Your task to perform on an android device: Go to ESPN.com Image 0: 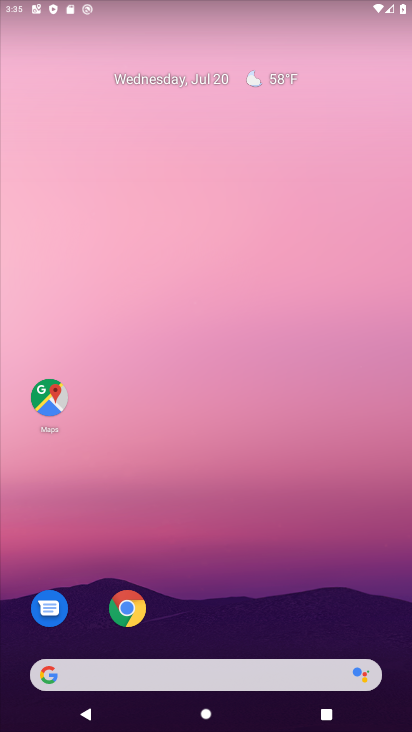
Step 0: click (201, 685)
Your task to perform on an android device: Go to ESPN.com Image 1: 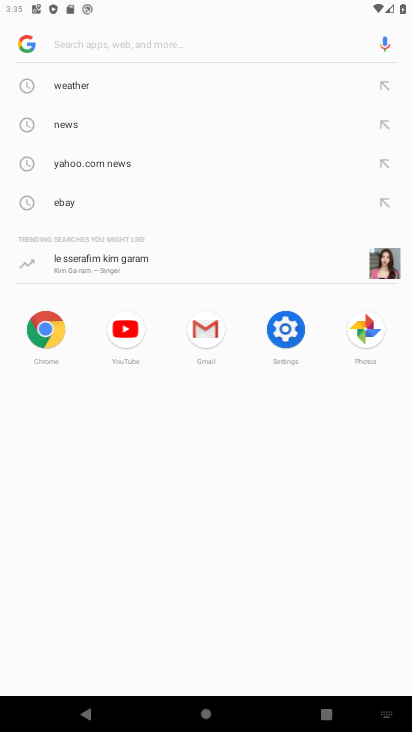
Step 1: type "espn.com"
Your task to perform on an android device: Go to ESPN.com Image 2: 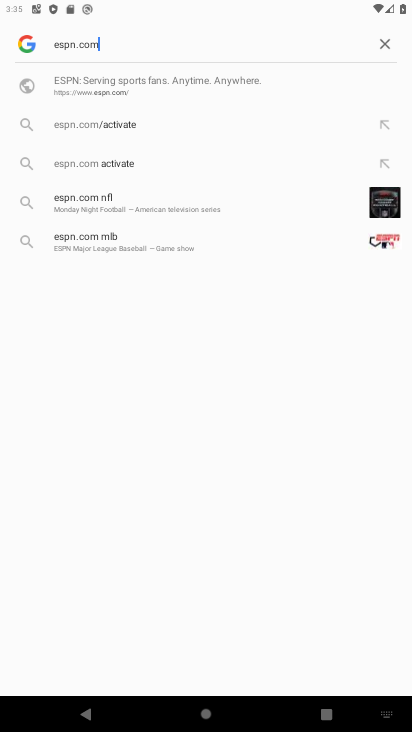
Step 2: click (186, 89)
Your task to perform on an android device: Go to ESPN.com Image 3: 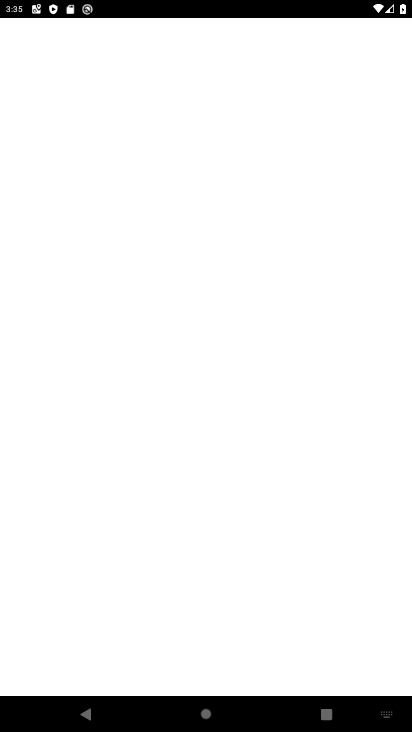
Step 3: task complete